Your task to perform on an android device: open sync settings in chrome Image 0: 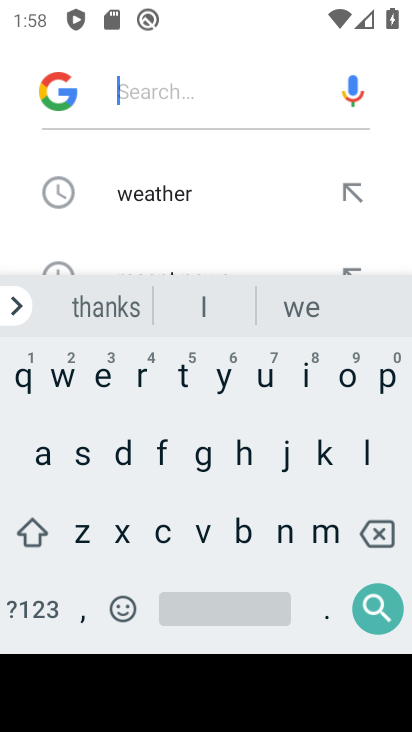
Step 0: press home button
Your task to perform on an android device: open sync settings in chrome Image 1: 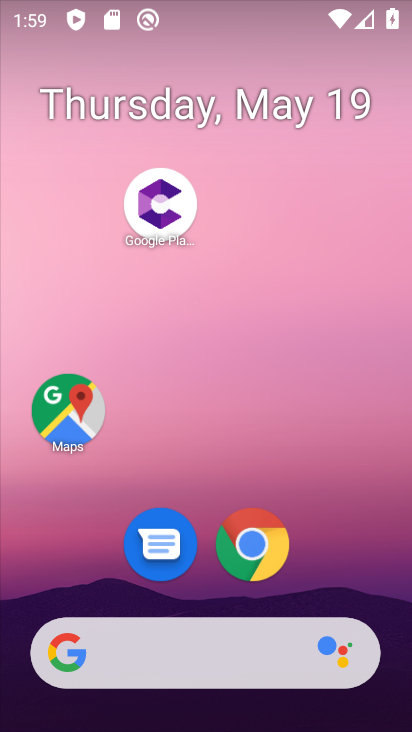
Step 1: click (277, 538)
Your task to perform on an android device: open sync settings in chrome Image 2: 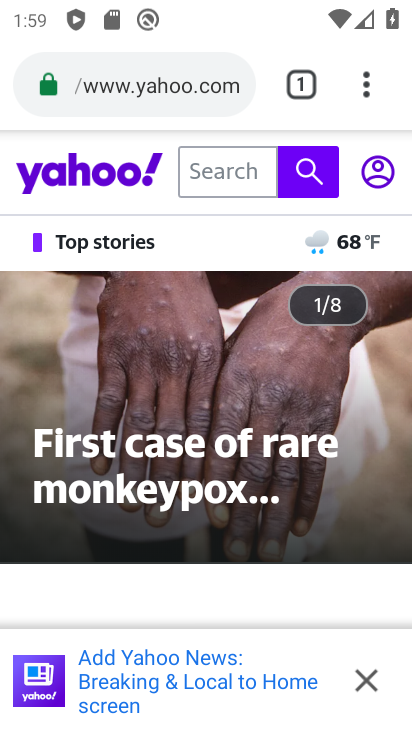
Step 2: click (347, 83)
Your task to perform on an android device: open sync settings in chrome Image 3: 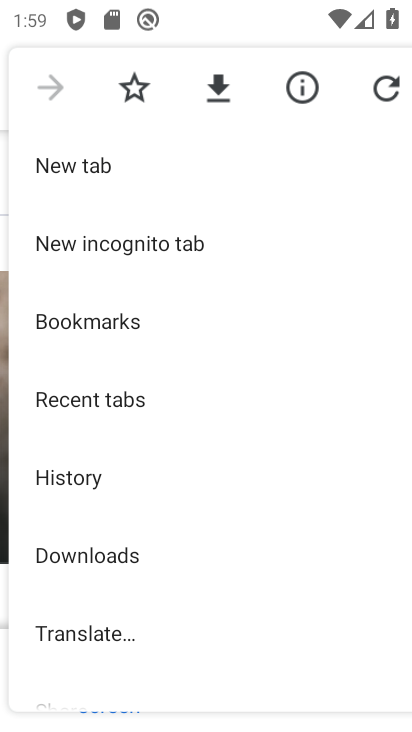
Step 3: drag from (166, 546) to (167, 207)
Your task to perform on an android device: open sync settings in chrome Image 4: 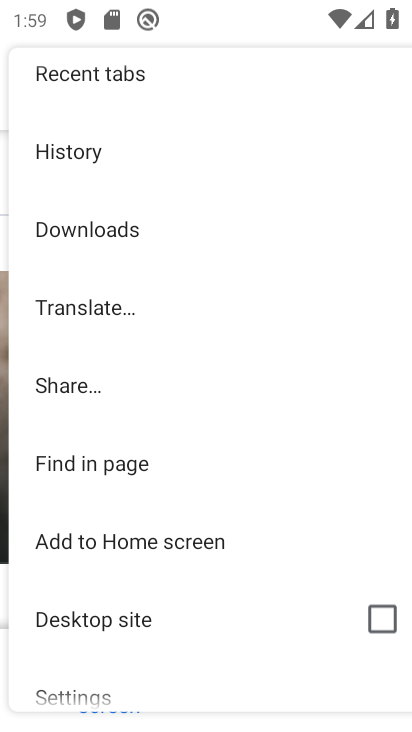
Step 4: click (89, 682)
Your task to perform on an android device: open sync settings in chrome Image 5: 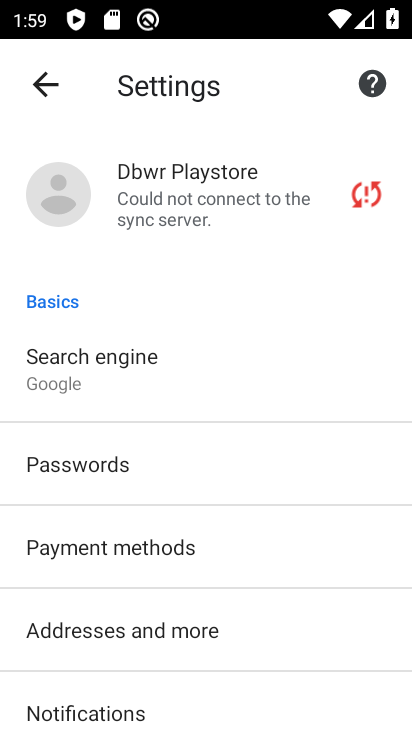
Step 5: task complete